Your task to perform on an android device: turn on priority inbox in the gmail app Image 0: 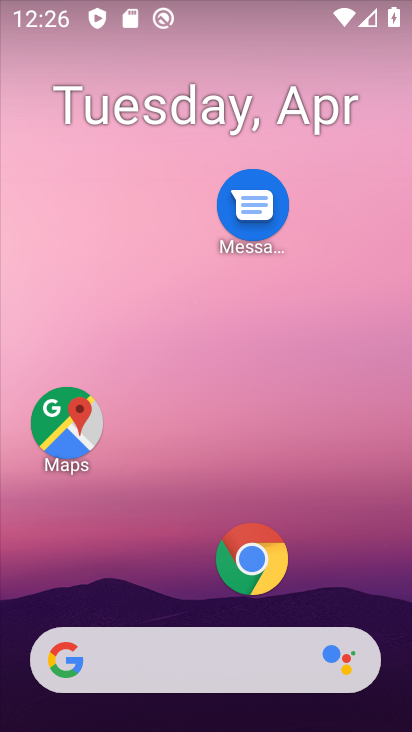
Step 0: drag from (143, 563) to (209, 170)
Your task to perform on an android device: turn on priority inbox in the gmail app Image 1: 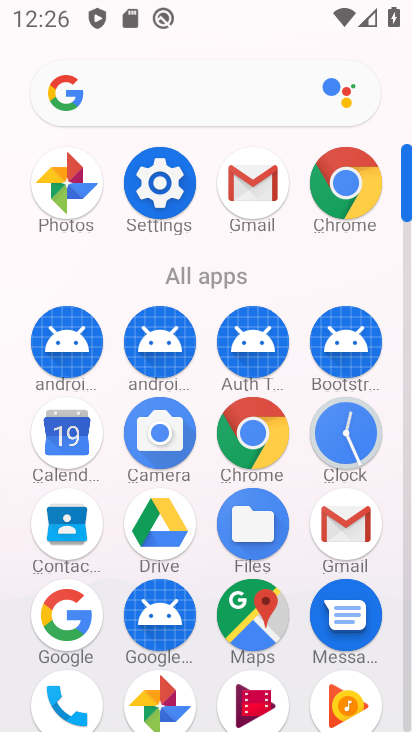
Step 1: click (249, 197)
Your task to perform on an android device: turn on priority inbox in the gmail app Image 2: 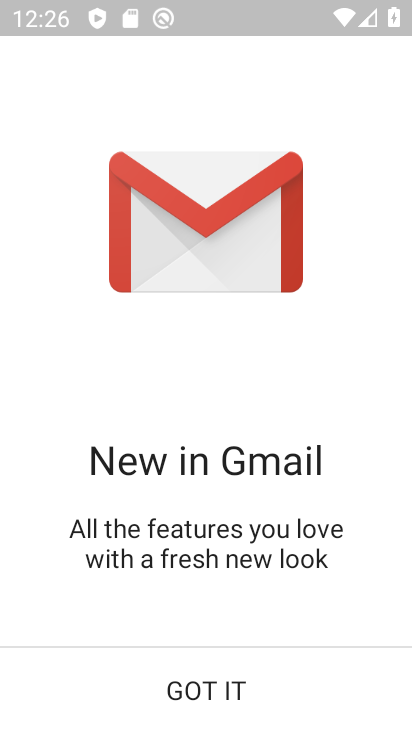
Step 2: click (202, 690)
Your task to perform on an android device: turn on priority inbox in the gmail app Image 3: 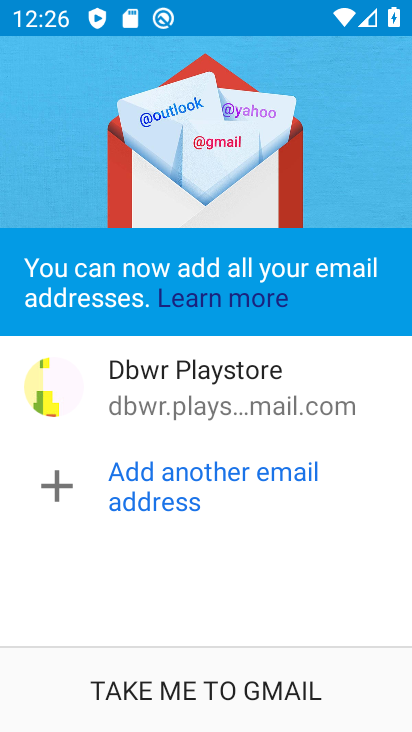
Step 3: click (202, 690)
Your task to perform on an android device: turn on priority inbox in the gmail app Image 4: 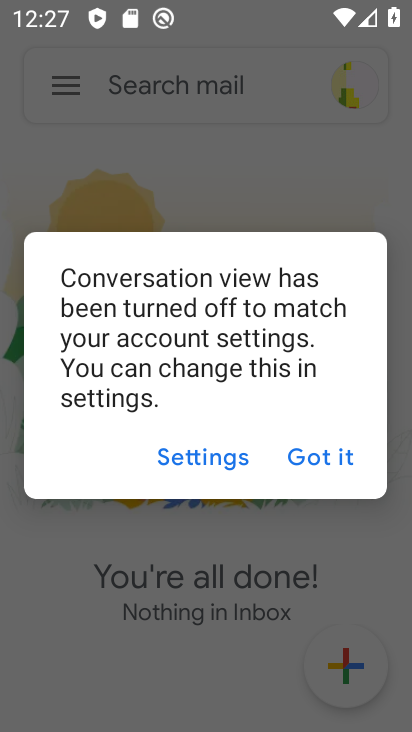
Step 4: click (319, 464)
Your task to perform on an android device: turn on priority inbox in the gmail app Image 5: 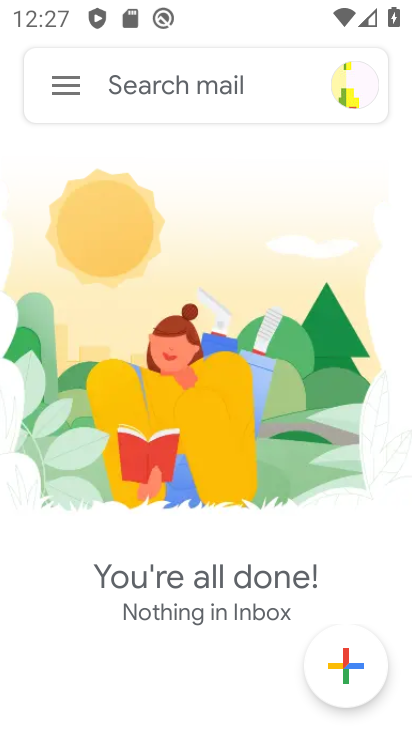
Step 5: click (61, 90)
Your task to perform on an android device: turn on priority inbox in the gmail app Image 6: 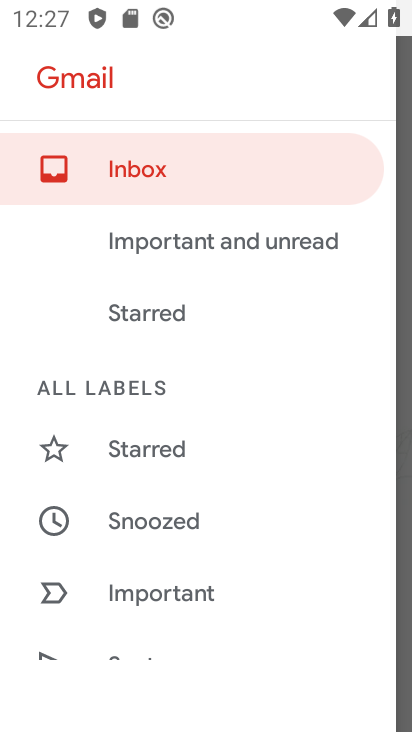
Step 6: drag from (157, 562) to (246, 47)
Your task to perform on an android device: turn on priority inbox in the gmail app Image 7: 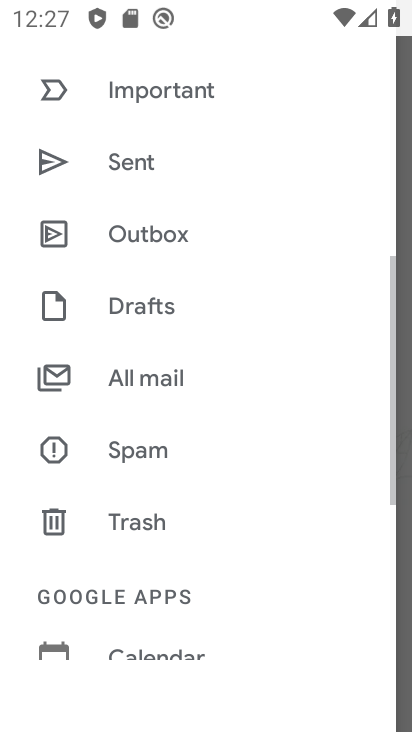
Step 7: drag from (183, 571) to (178, 127)
Your task to perform on an android device: turn on priority inbox in the gmail app Image 8: 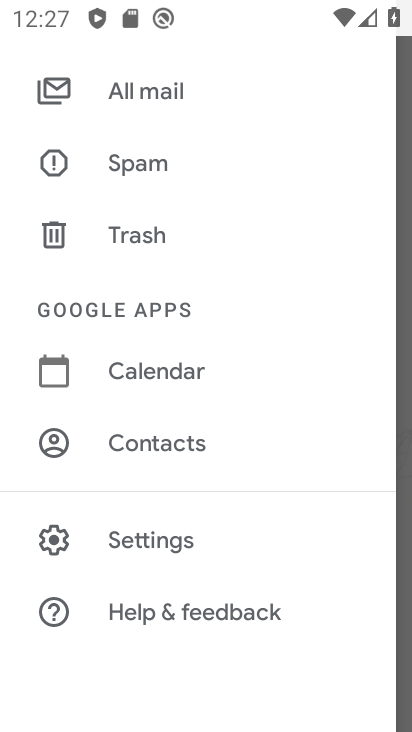
Step 8: click (161, 549)
Your task to perform on an android device: turn on priority inbox in the gmail app Image 9: 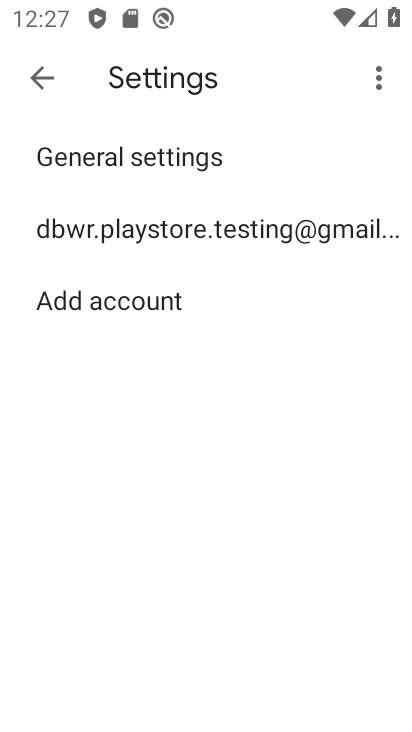
Step 9: click (157, 237)
Your task to perform on an android device: turn on priority inbox in the gmail app Image 10: 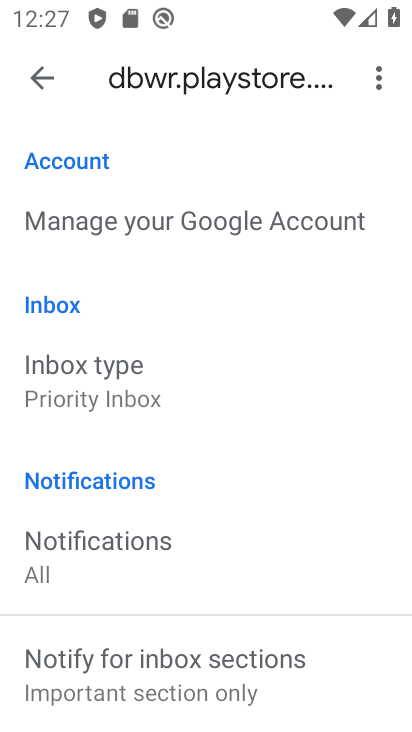
Step 10: click (120, 367)
Your task to perform on an android device: turn on priority inbox in the gmail app Image 11: 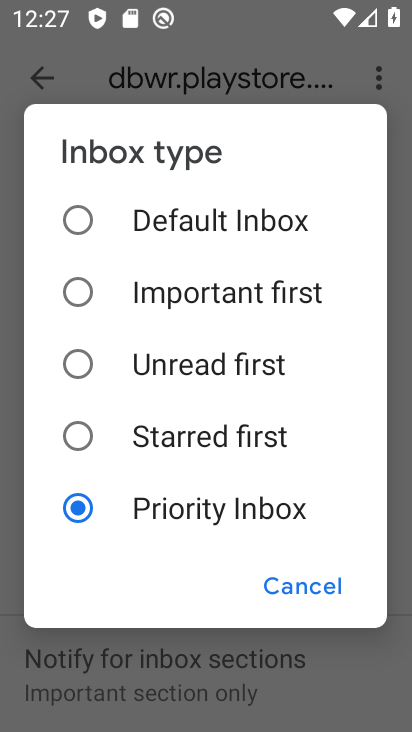
Step 11: click (175, 507)
Your task to perform on an android device: turn on priority inbox in the gmail app Image 12: 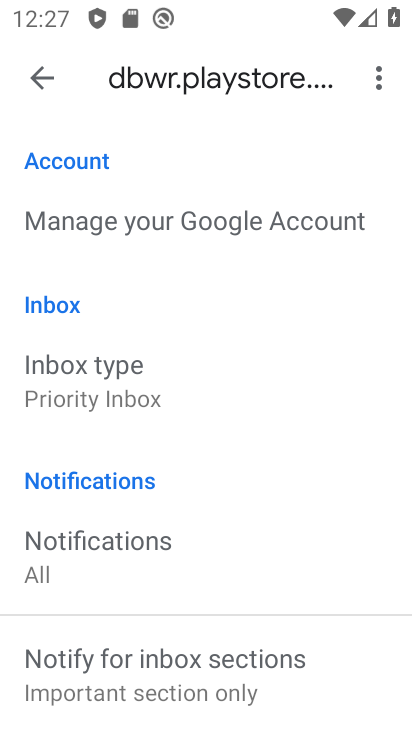
Step 12: task complete